Your task to perform on an android device: Open CNN.com Image 0: 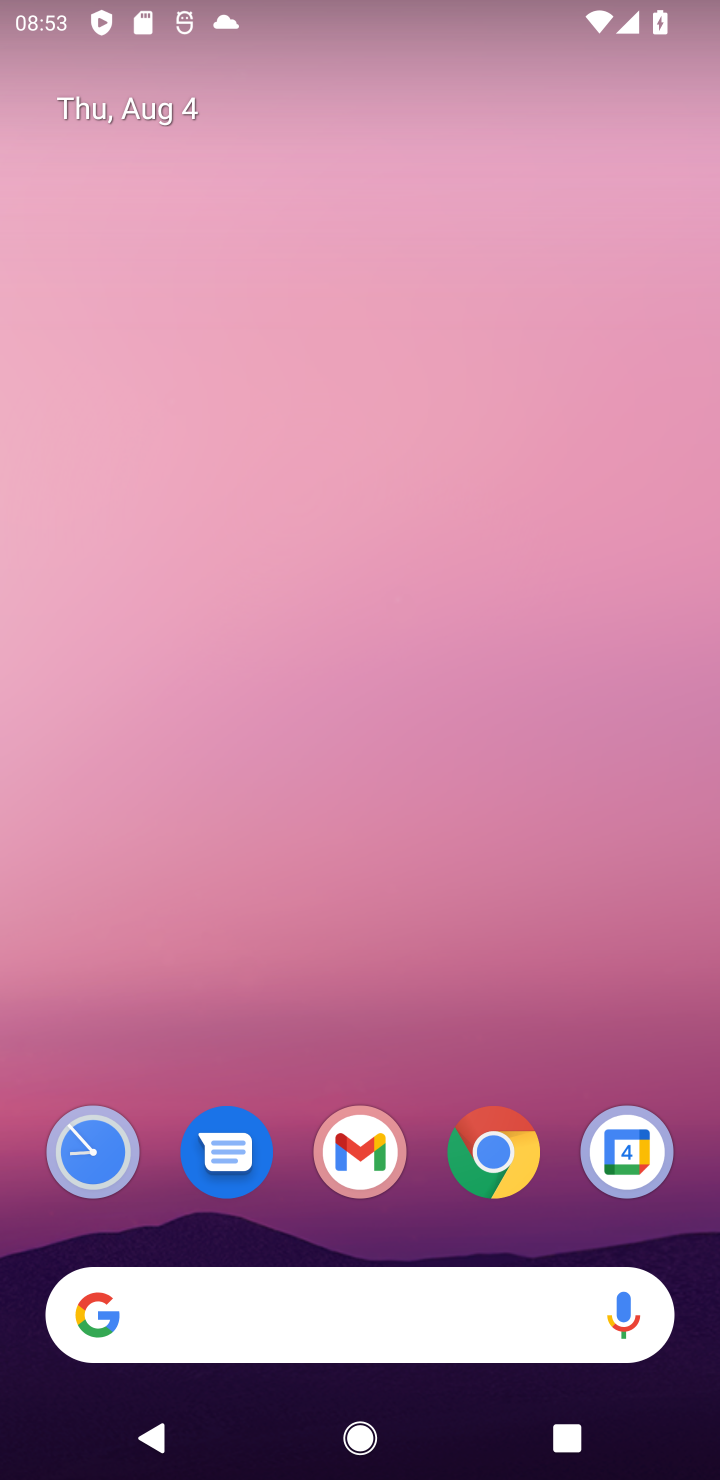
Step 0: click (237, 1301)
Your task to perform on an android device: Open CNN.com Image 1: 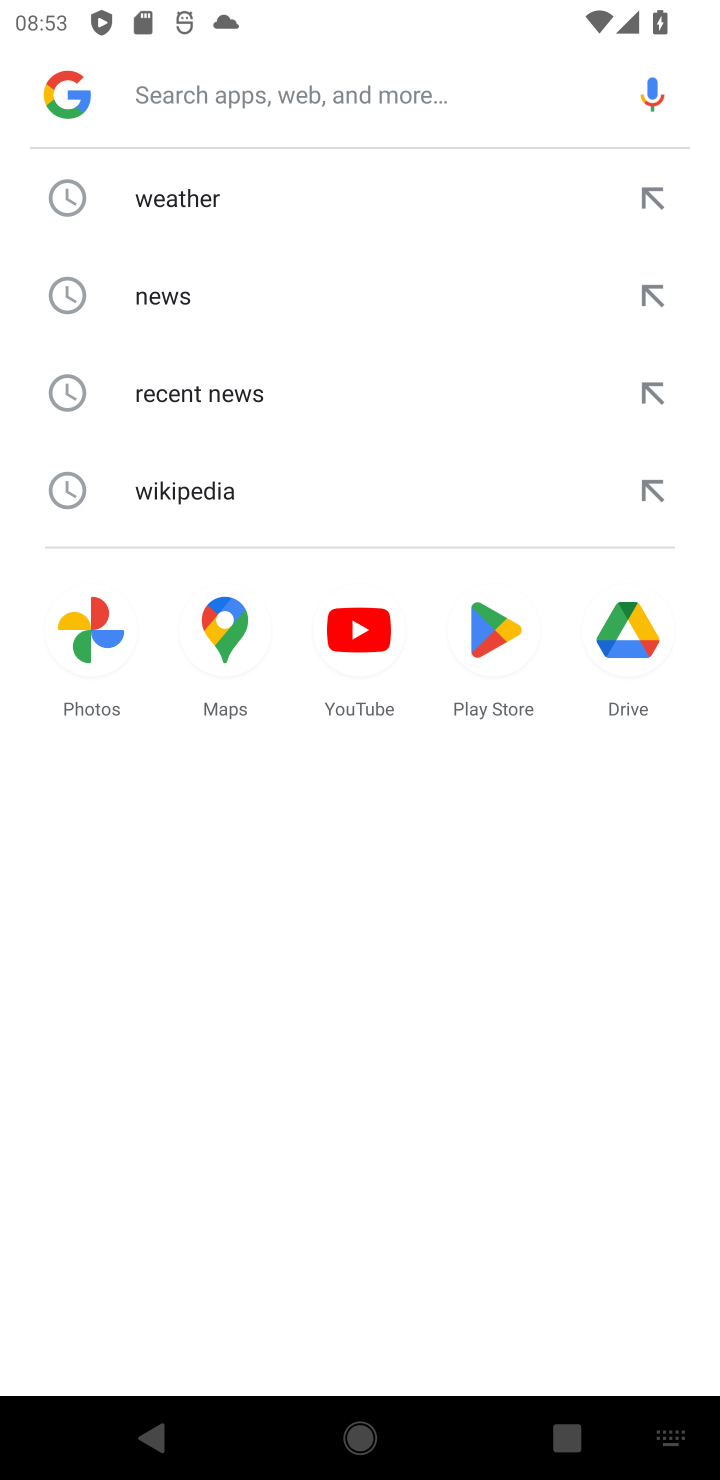
Step 1: click (221, 92)
Your task to perform on an android device: Open CNN.com Image 2: 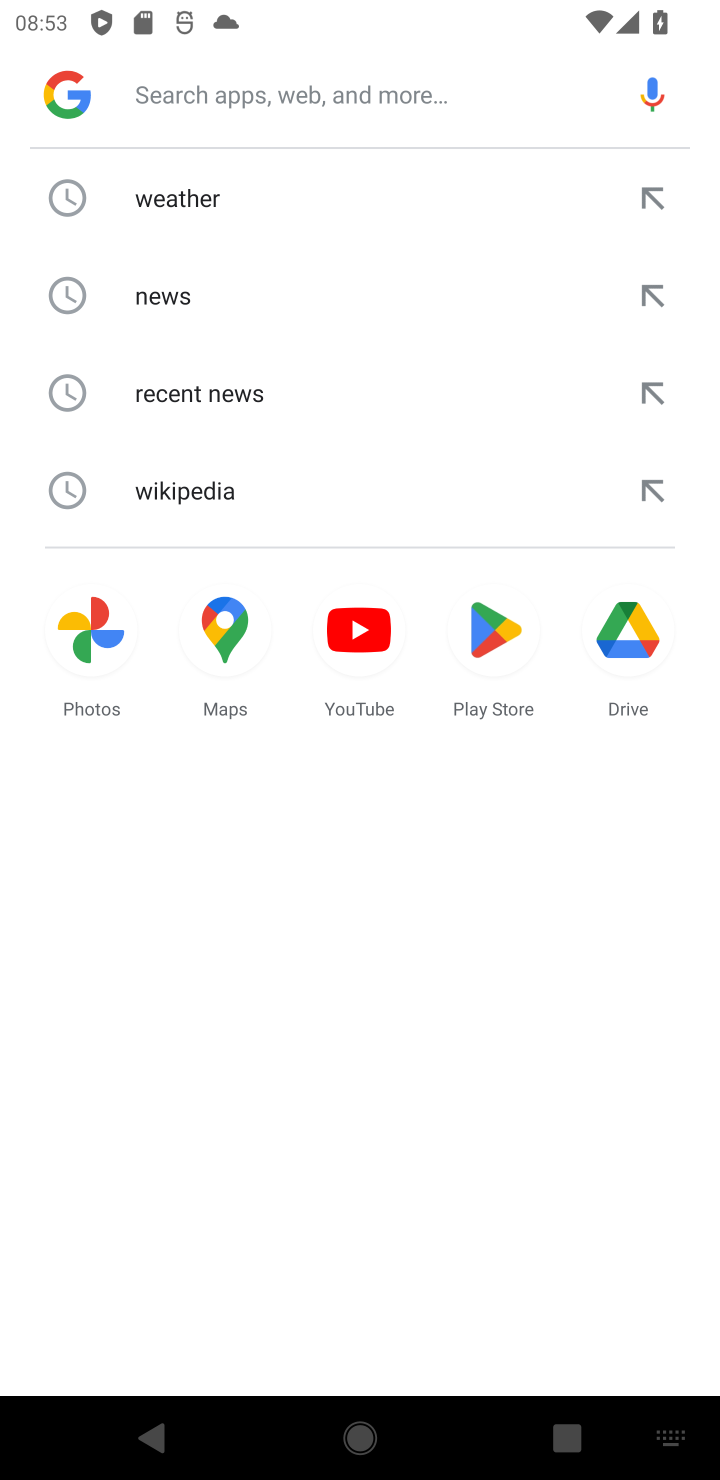
Step 2: type "CNN.com"
Your task to perform on an android device: Open CNN.com Image 3: 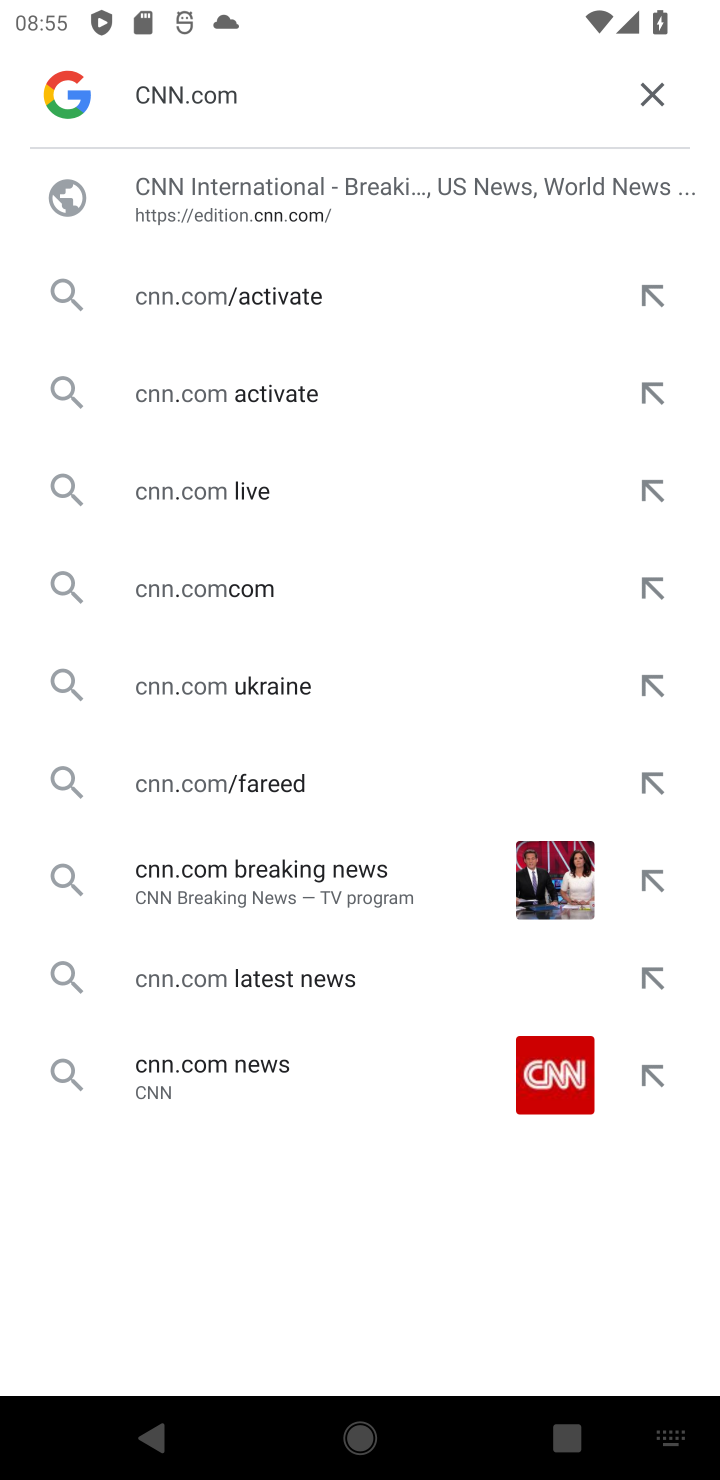
Step 3: click (322, 224)
Your task to perform on an android device: Open CNN.com Image 4: 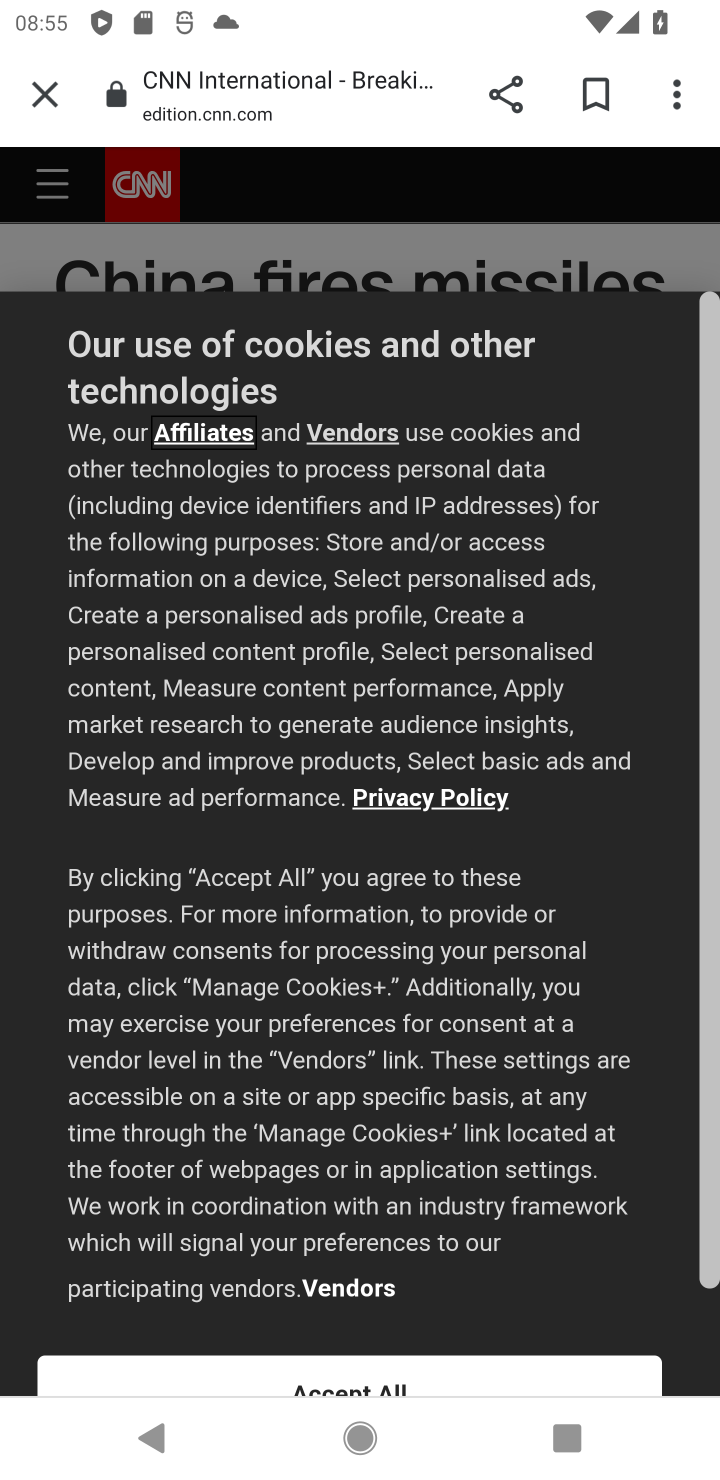
Step 4: task complete